Your task to perform on an android device: Search for pizza restaurants on Maps Image 0: 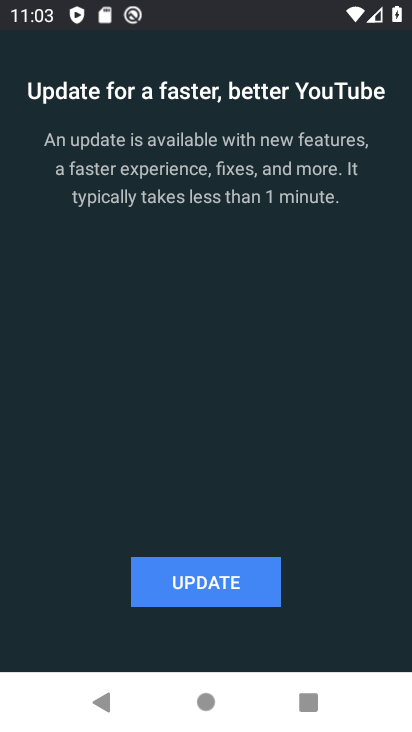
Step 0: press home button
Your task to perform on an android device: Search for pizza restaurants on Maps Image 1: 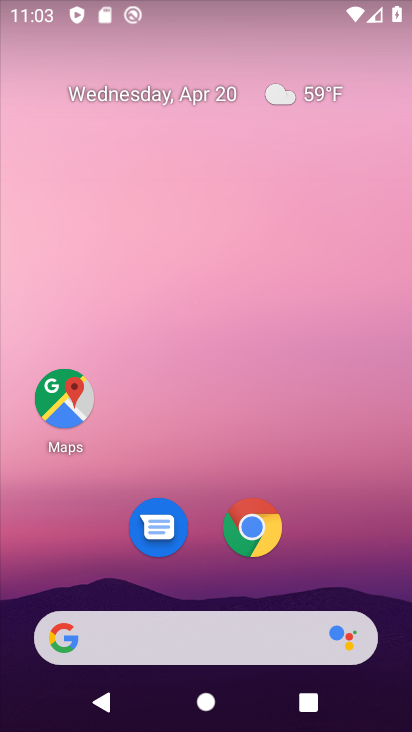
Step 1: click (72, 401)
Your task to perform on an android device: Search for pizza restaurants on Maps Image 2: 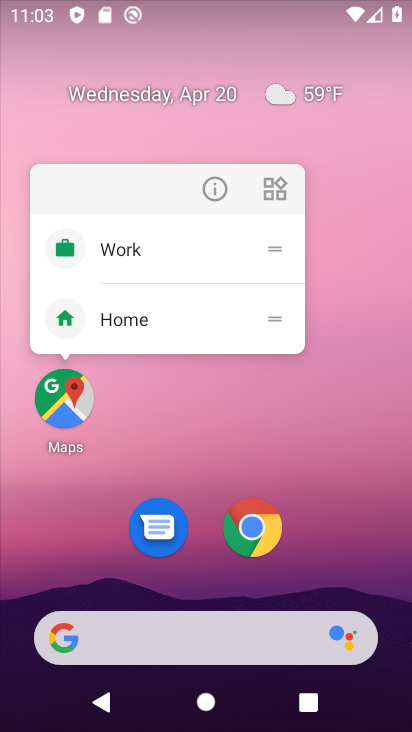
Step 2: click (72, 401)
Your task to perform on an android device: Search for pizza restaurants on Maps Image 3: 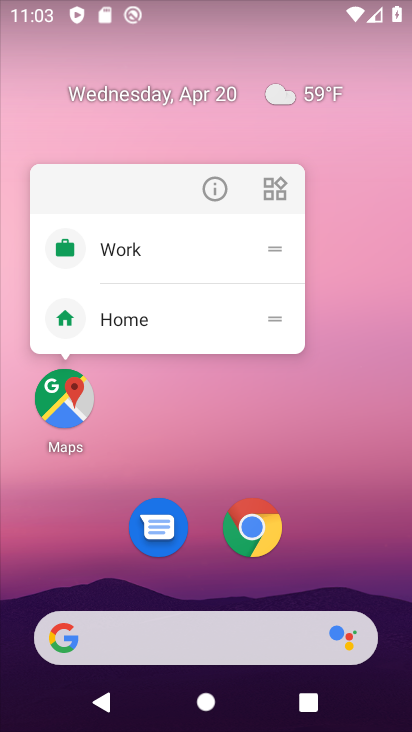
Step 3: click (65, 393)
Your task to perform on an android device: Search for pizza restaurants on Maps Image 4: 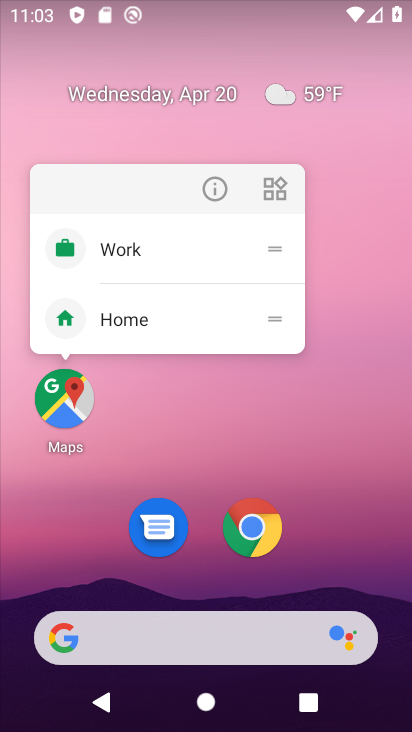
Step 4: click (65, 393)
Your task to perform on an android device: Search for pizza restaurants on Maps Image 5: 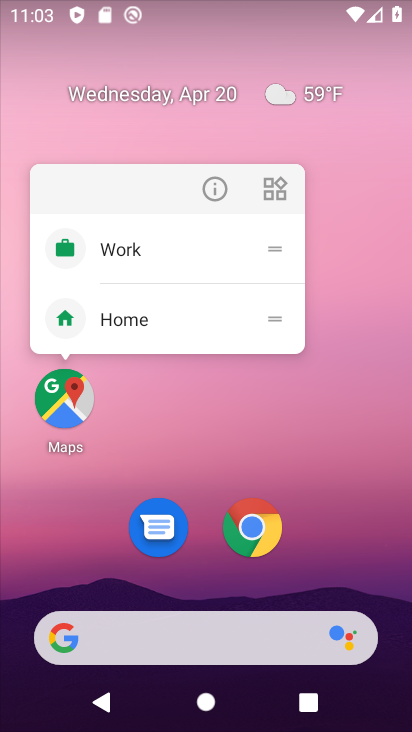
Step 5: click (65, 393)
Your task to perform on an android device: Search for pizza restaurants on Maps Image 6: 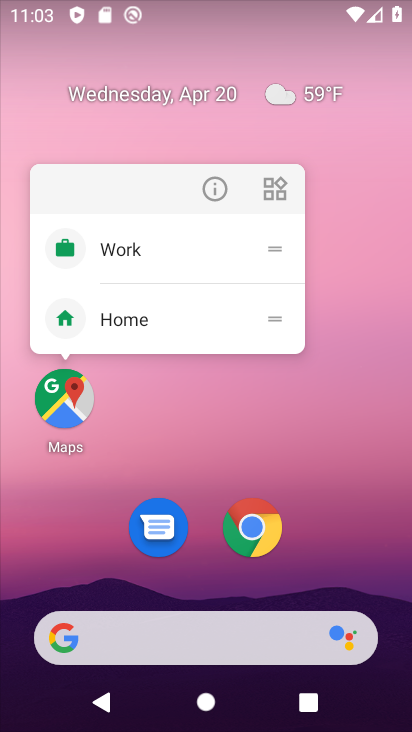
Step 6: click (50, 418)
Your task to perform on an android device: Search for pizza restaurants on Maps Image 7: 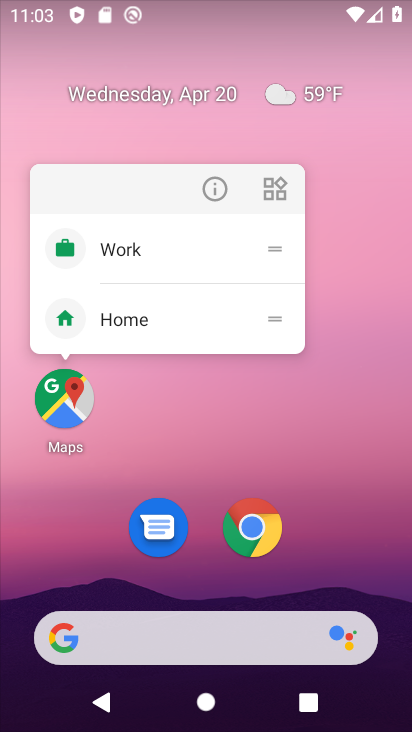
Step 7: click (68, 409)
Your task to perform on an android device: Search for pizza restaurants on Maps Image 8: 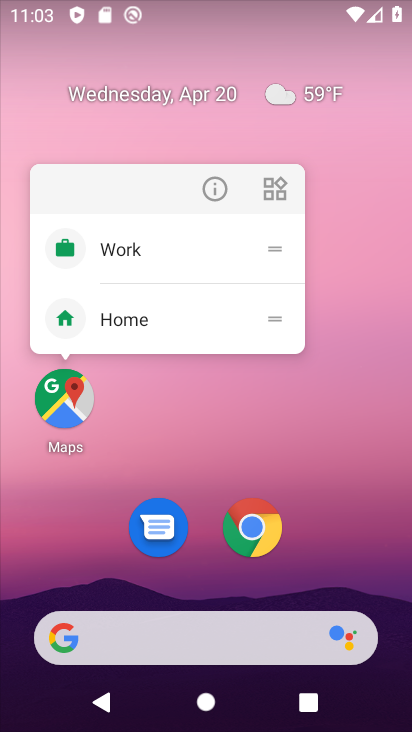
Step 8: click (69, 406)
Your task to perform on an android device: Search for pizza restaurants on Maps Image 9: 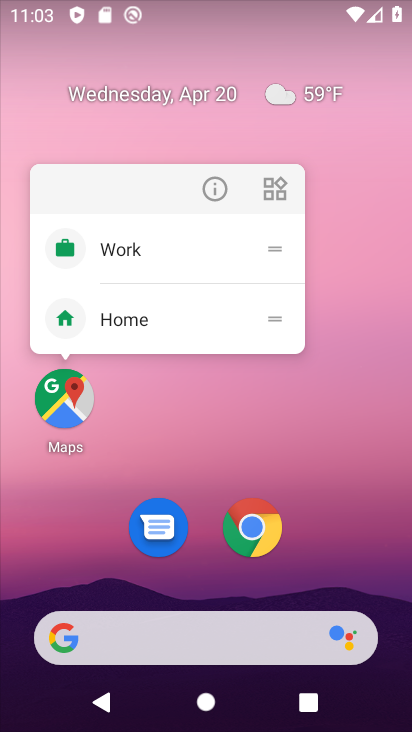
Step 9: click (69, 406)
Your task to perform on an android device: Search for pizza restaurants on Maps Image 10: 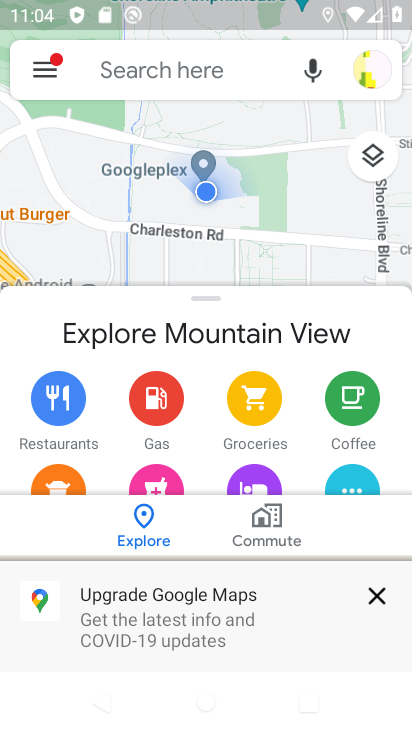
Step 10: click (378, 597)
Your task to perform on an android device: Search for pizza restaurants on Maps Image 11: 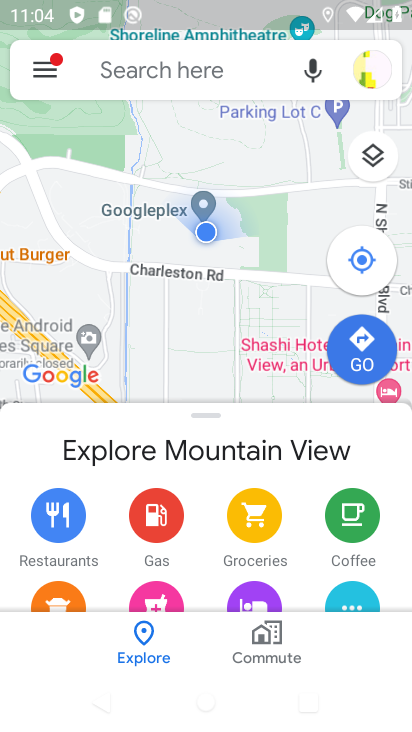
Step 11: click (121, 74)
Your task to perform on an android device: Search for pizza restaurants on Maps Image 12: 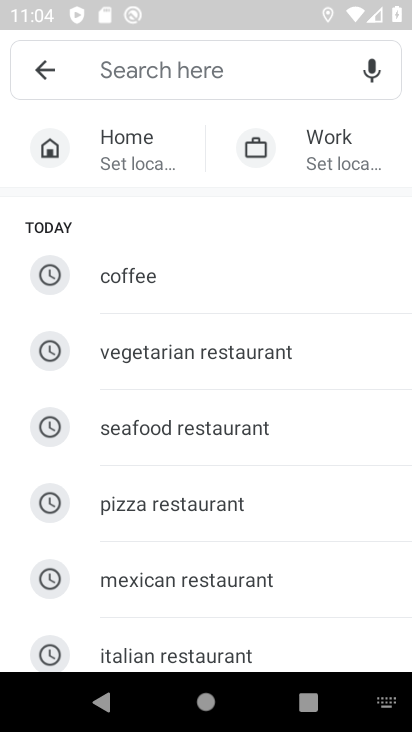
Step 12: click (198, 502)
Your task to perform on an android device: Search for pizza restaurants on Maps Image 13: 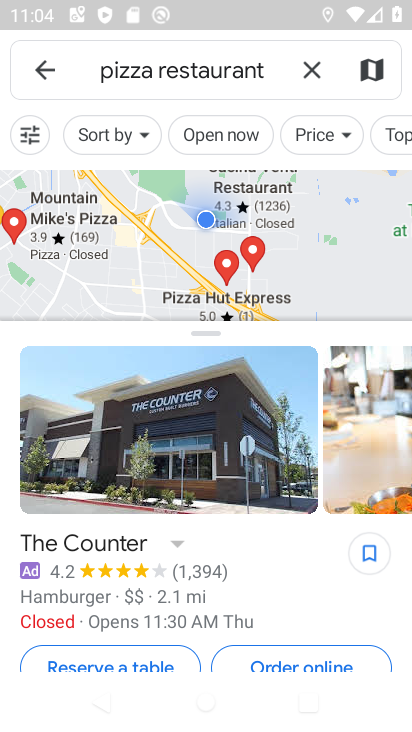
Step 13: task complete